Your task to perform on an android device: Open the calendar app, open the side menu, and click the "Day" option Image 0: 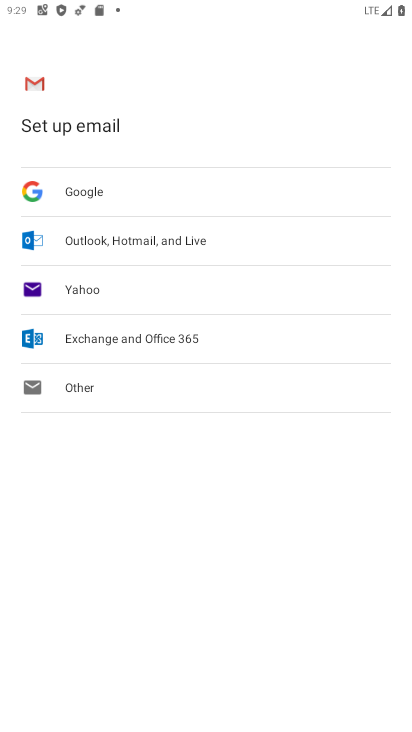
Step 0: press home button
Your task to perform on an android device: Open the calendar app, open the side menu, and click the "Day" option Image 1: 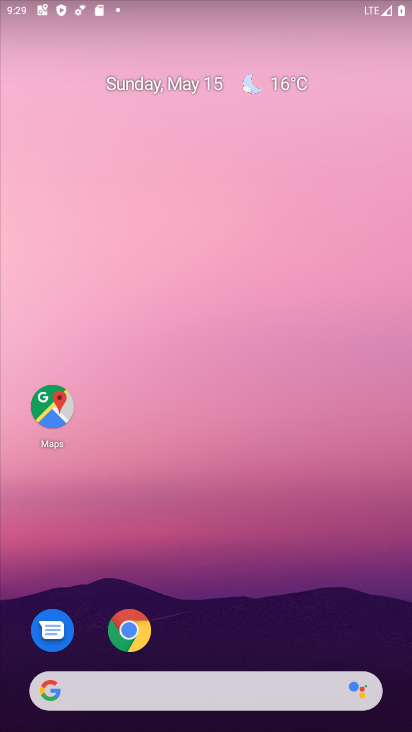
Step 1: drag from (231, 640) to (228, 195)
Your task to perform on an android device: Open the calendar app, open the side menu, and click the "Day" option Image 2: 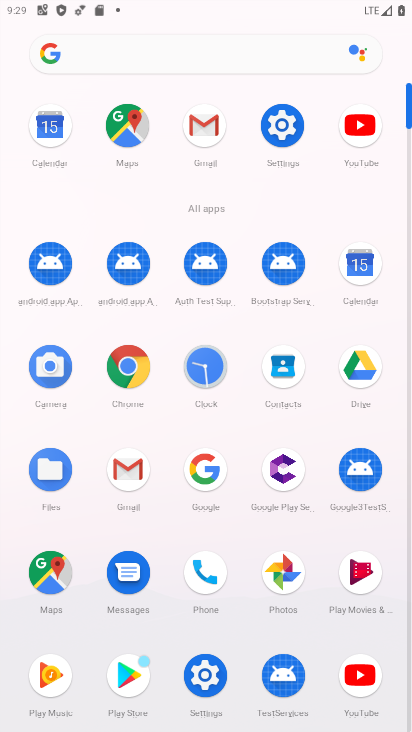
Step 2: click (346, 264)
Your task to perform on an android device: Open the calendar app, open the side menu, and click the "Day" option Image 3: 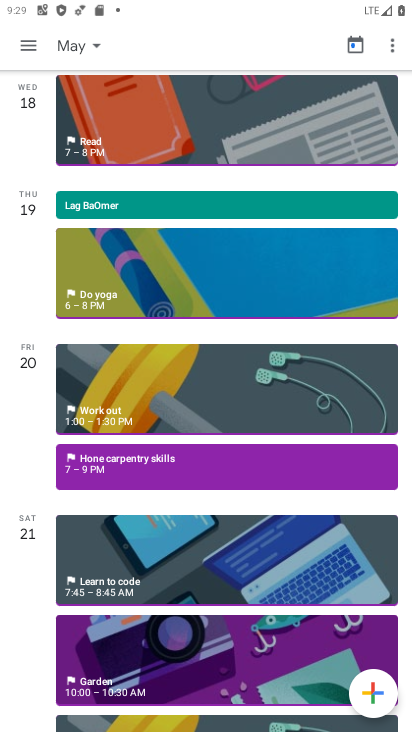
Step 3: click (97, 42)
Your task to perform on an android device: Open the calendar app, open the side menu, and click the "Day" option Image 4: 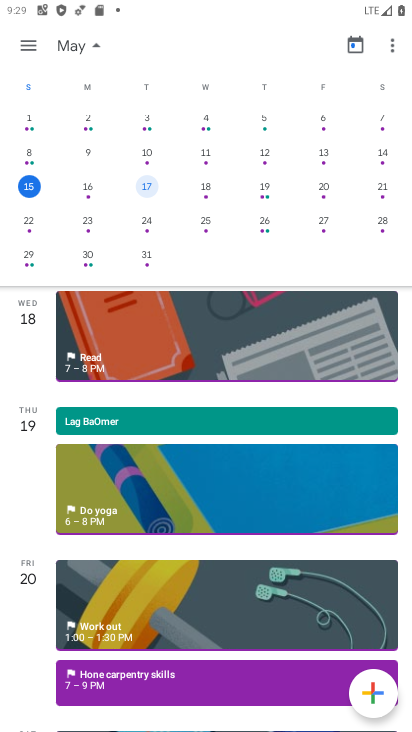
Step 4: click (22, 47)
Your task to perform on an android device: Open the calendar app, open the side menu, and click the "Day" option Image 5: 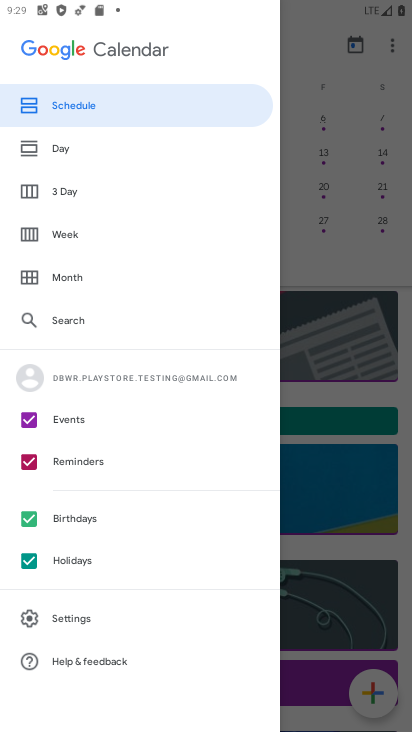
Step 5: click (82, 143)
Your task to perform on an android device: Open the calendar app, open the side menu, and click the "Day" option Image 6: 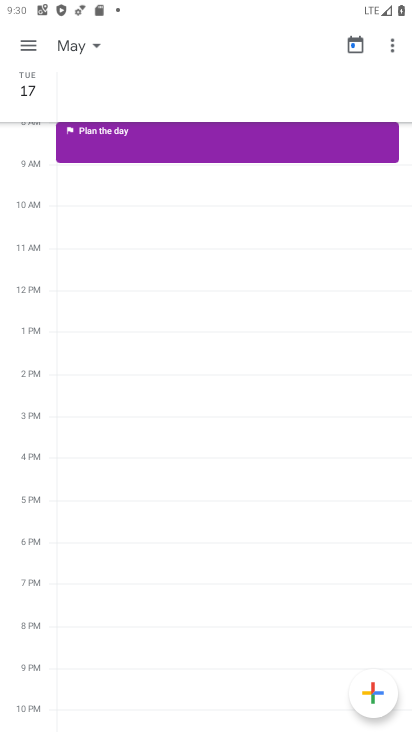
Step 6: task complete